Your task to perform on an android device: Go to Amazon Image 0: 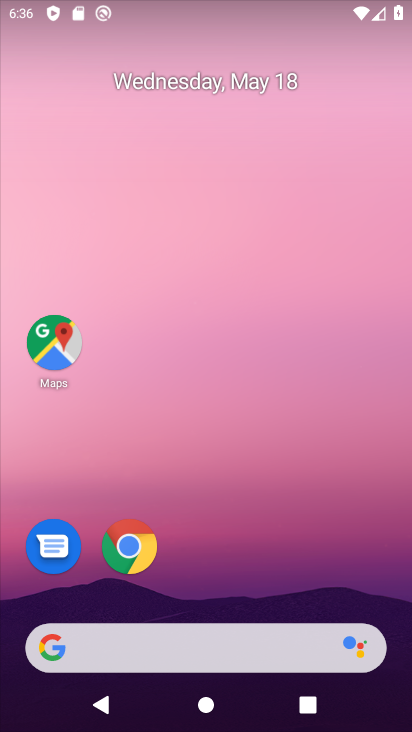
Step 0: press home button
Your task to perform on an android device: Go to Amazon Image 1: 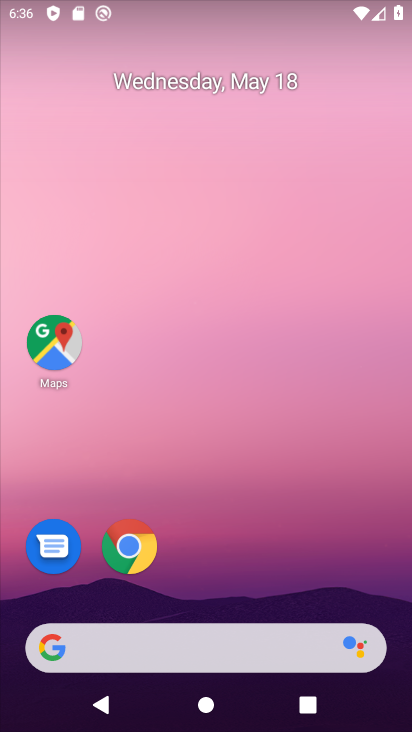
Step 1: drag from (377, 618) to (333, 163)
Your task to perform on an android device: Go to Amazon Image 2: 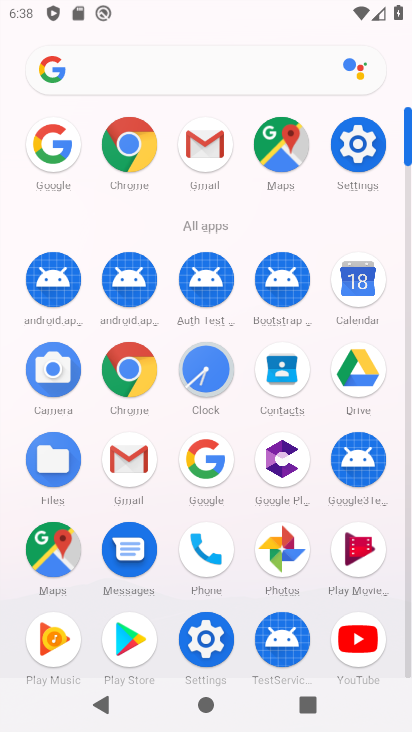
Step 2: click (137, 358)
Your task to perform on an android device: Go to Amazon Image 3: 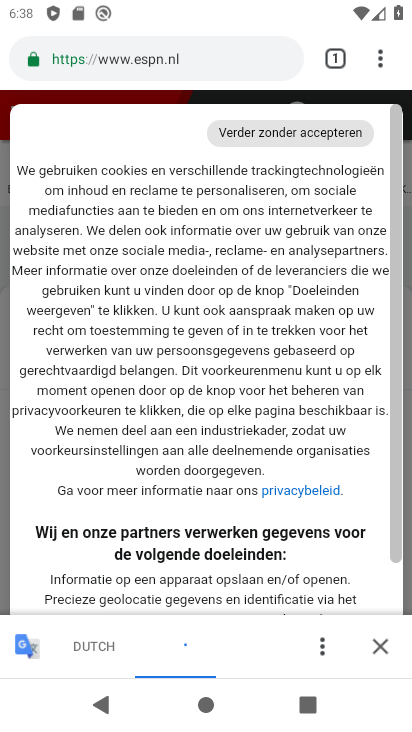
Step 3: press back button
Your task to perform on an android device: Go to Amazon Image 4: 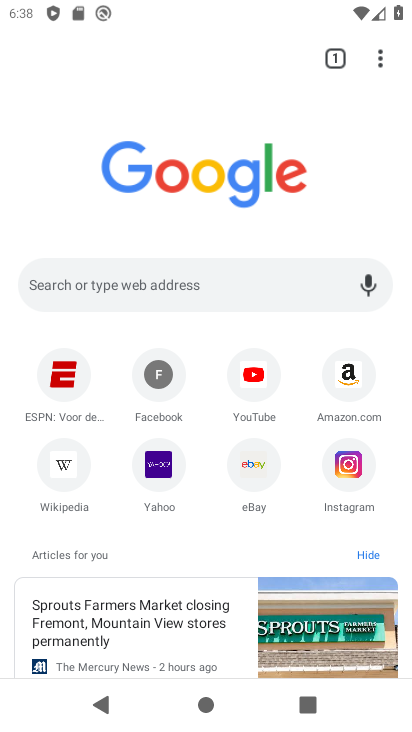
Step 4: click (343, 379)
Your task to perform on an android device: Go to Amazon Image 5: 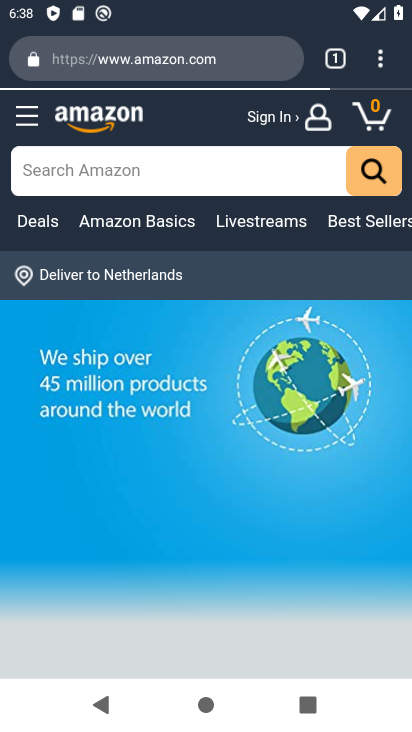
Step 5: task complete